Your task to perform on an android device: add a contact Image 0: 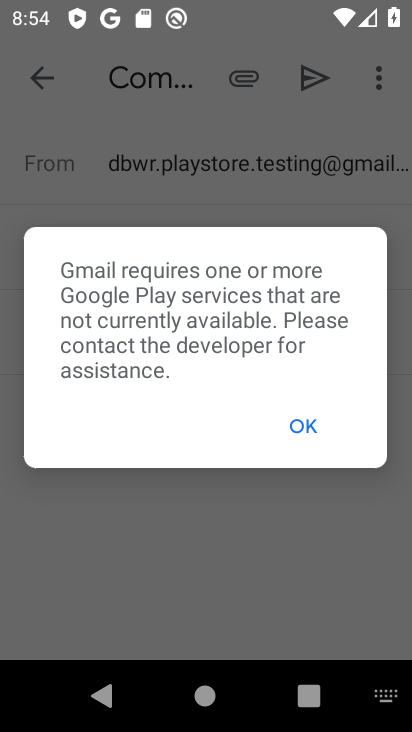
Step 0: press back button
Your task to perform on an android device: add a contact Image 1: 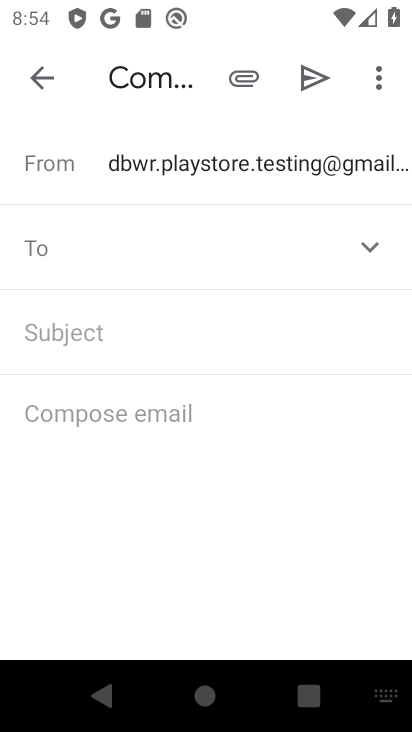
Step 1: press home button
Your task to perform on an android device: add a contact Image 2: 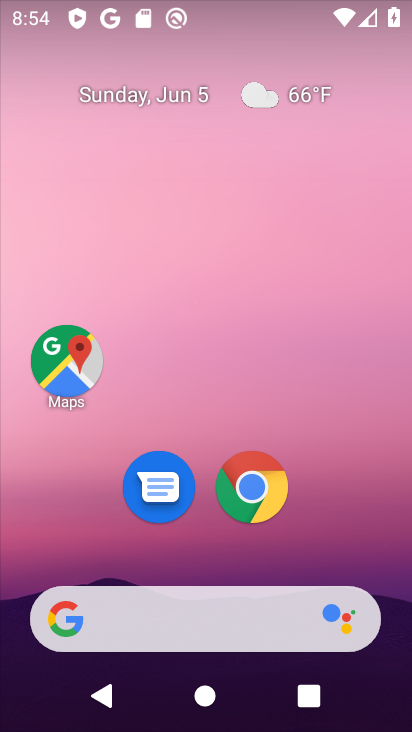
Step 2: drag from (221, 565) to (290, 96)
Your task to perform on an android device: add a contact Image 3: 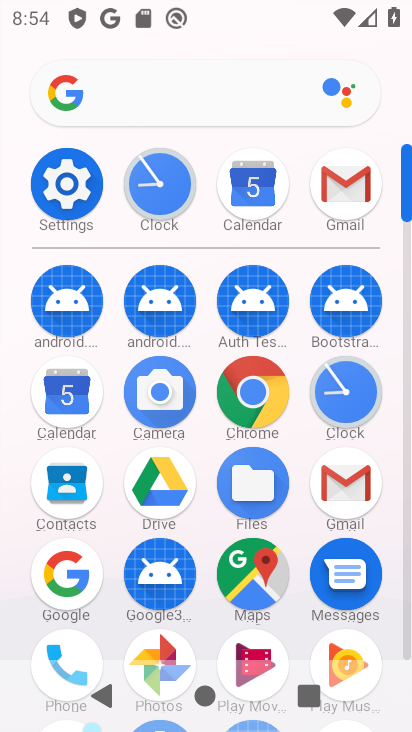
Step 3: click (59, 498)
Your task to perform on an android device: add a contact Image 4: 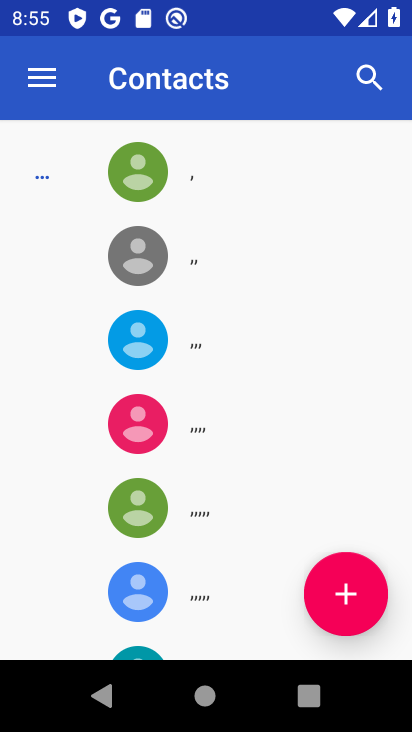
Step 4: click (346, 590)
Your task to perform on an android device: add a contact Image 5: 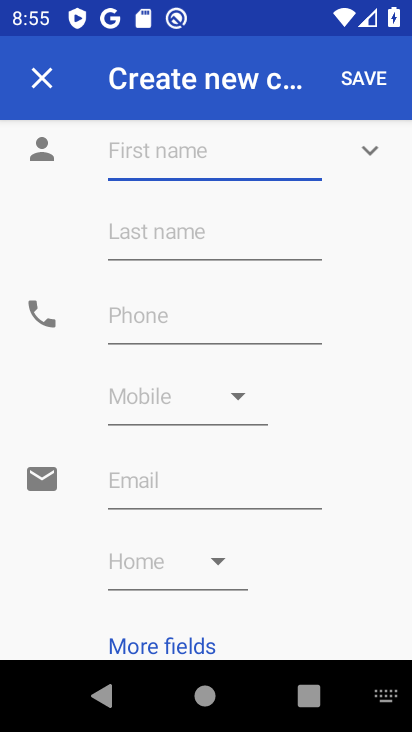
Step 5: type "vhvh"
Your task to perform on an android device: add a contact Image 6: 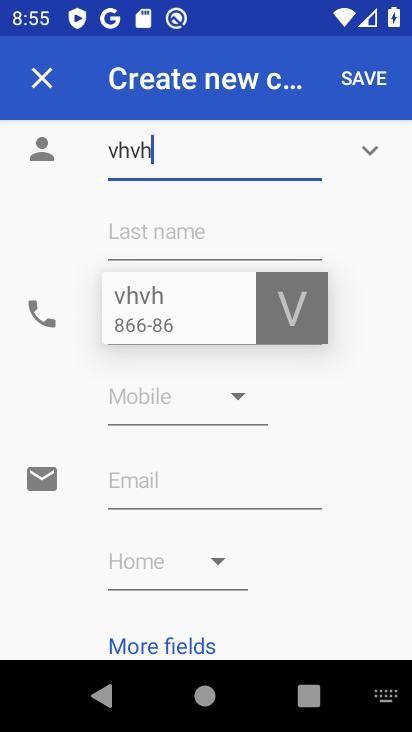
Step 6: click (157, 321)
Your task to perform on an android device: add a contact Image 7: 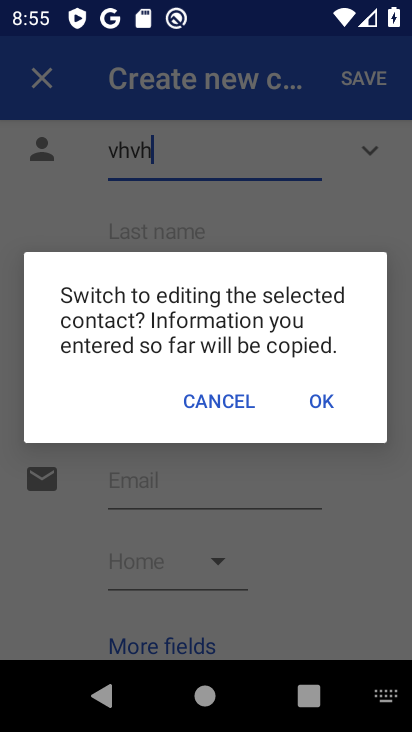
Step 7: click (335, 397)
Your task to perform on an android device: add a contact Image 8: 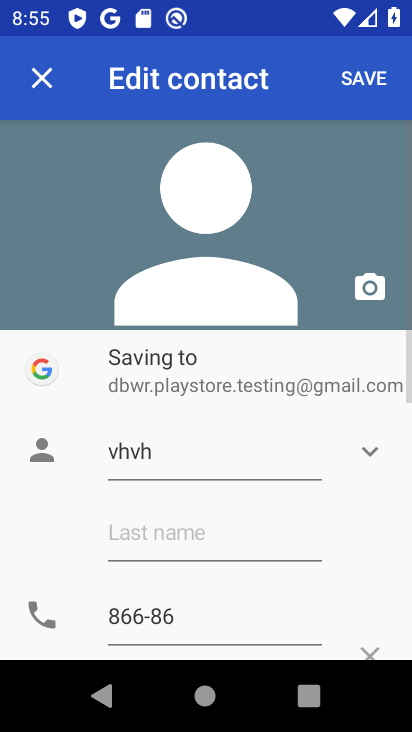
Step 8: click (354, 64)
Your task to perform on an android device: add a contact Image 9: 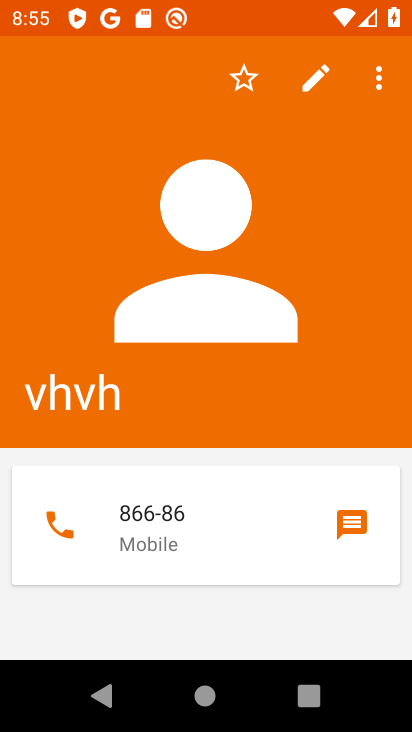
Step 9: task complete